Your task to perform on an android device: install app "Walmart Shopping & Grocery" Image 0: 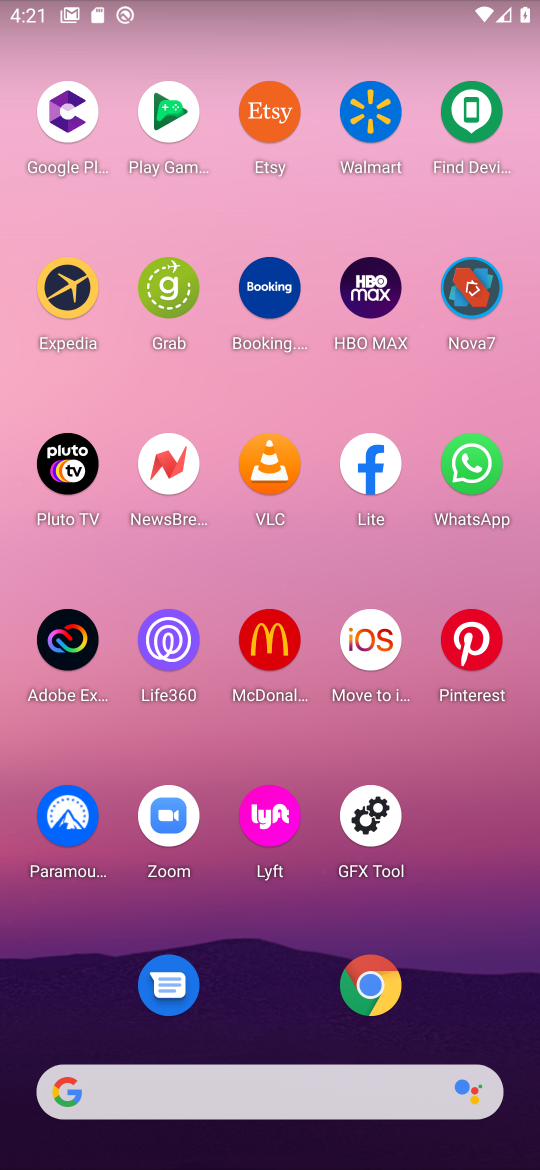
Step 0: drag from (259, 912) to (243, 100)
Your task to perform on an android device: install app "Walmart Shopping & Grocery" Image 1: 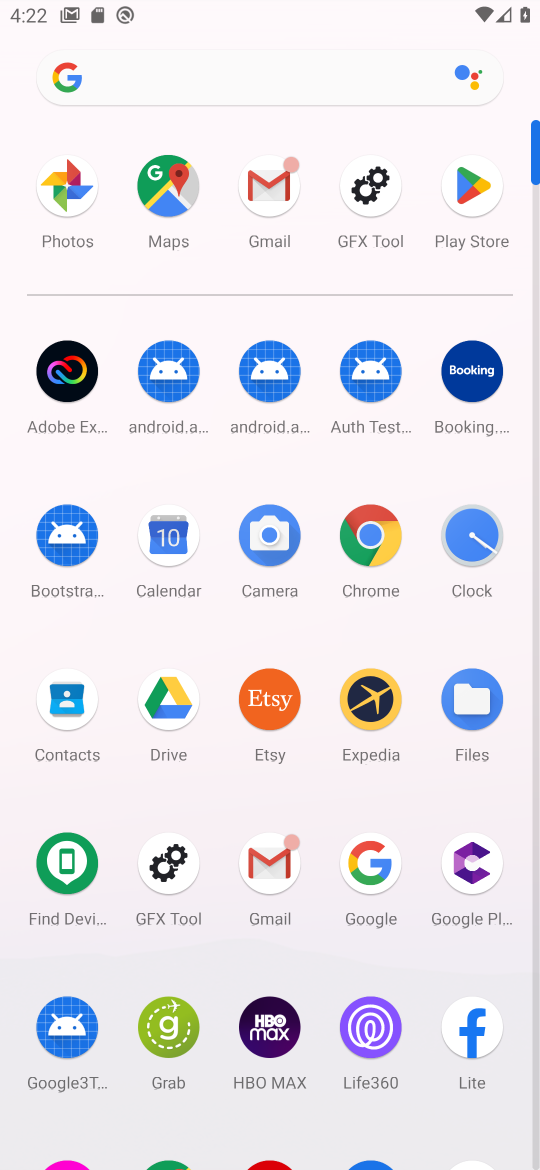
Step 1: click (455, 228)
Your task to perform on an android device: install app "Walmart Shopping & Grocery" Image 2: 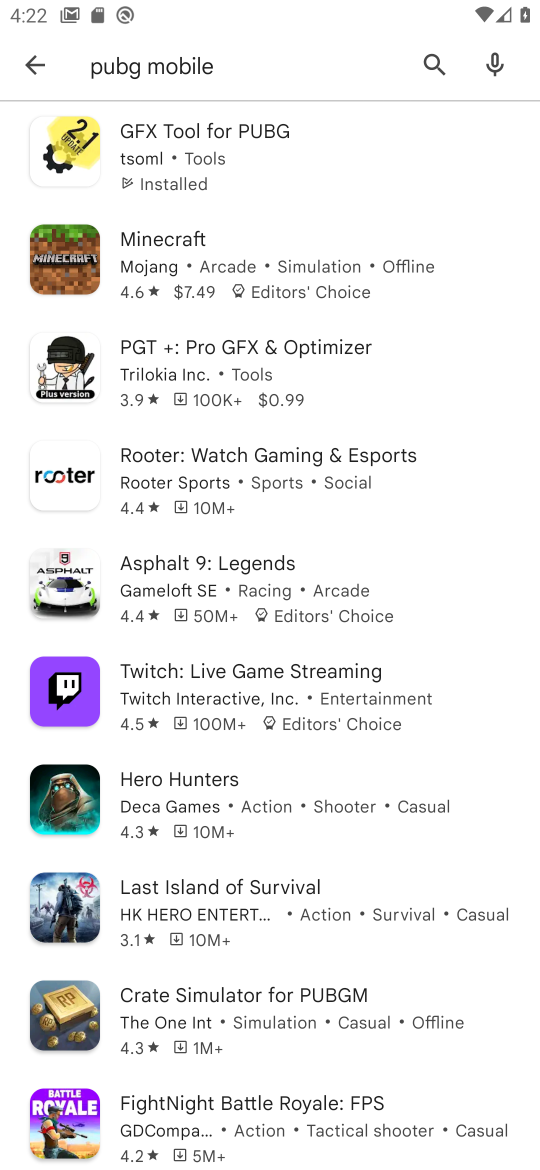
Step 2: click (35, 67)
Your task to perform on an android device: install app "Walmart Shopping & Grocery" Image 3: 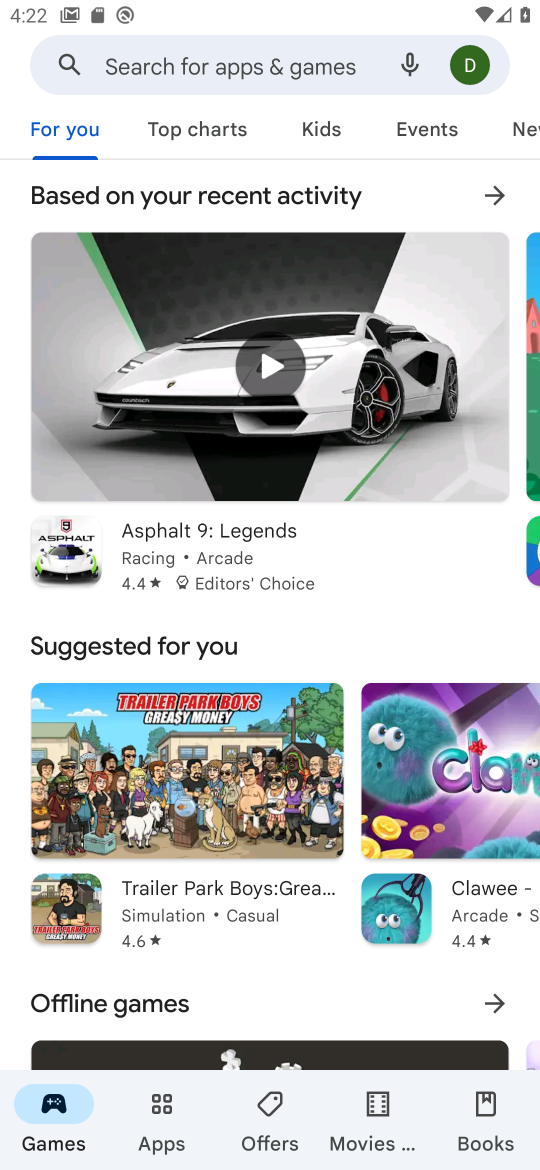
Step 3: click (200, 67)
Your task to perform on an android device: install app "Walmart Shopping & Grocery" Image 4: 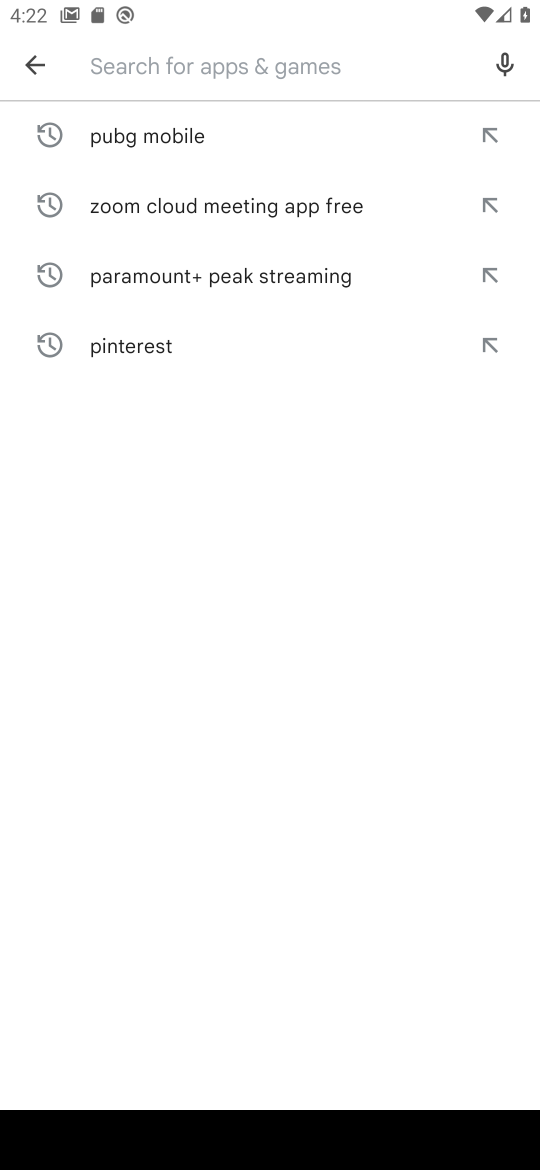
Step 4: type "Walmart Shopping & Grocery"
Your task to perform on an android device: install app "Walmart Shopping & Grocery" Image 5: 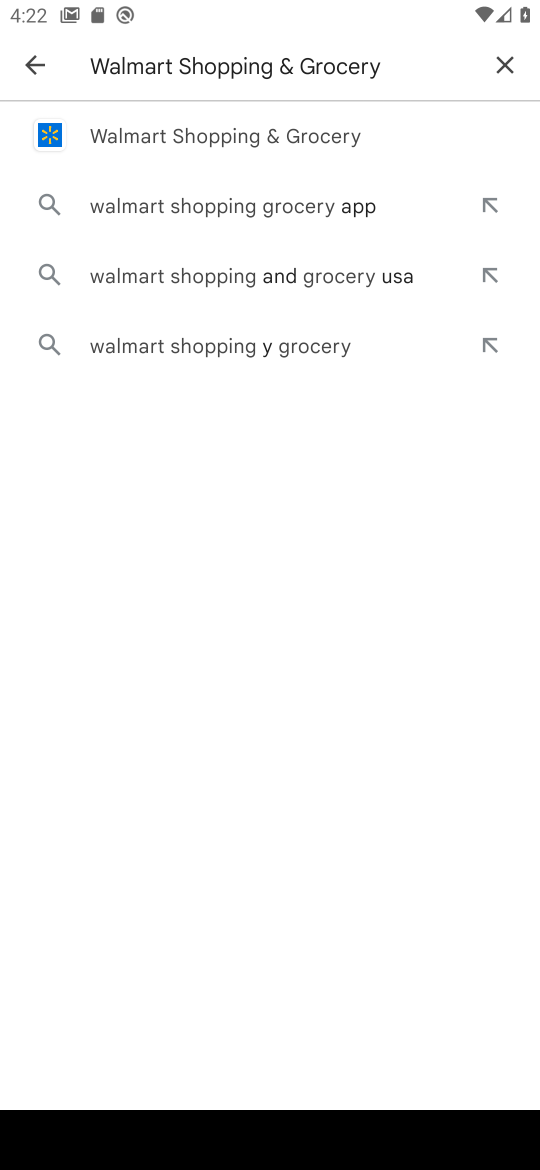
Step 5: click (298, 145)
Your task to perform on an android device: install app "Walmart Shopping & Grocery" Image 6: 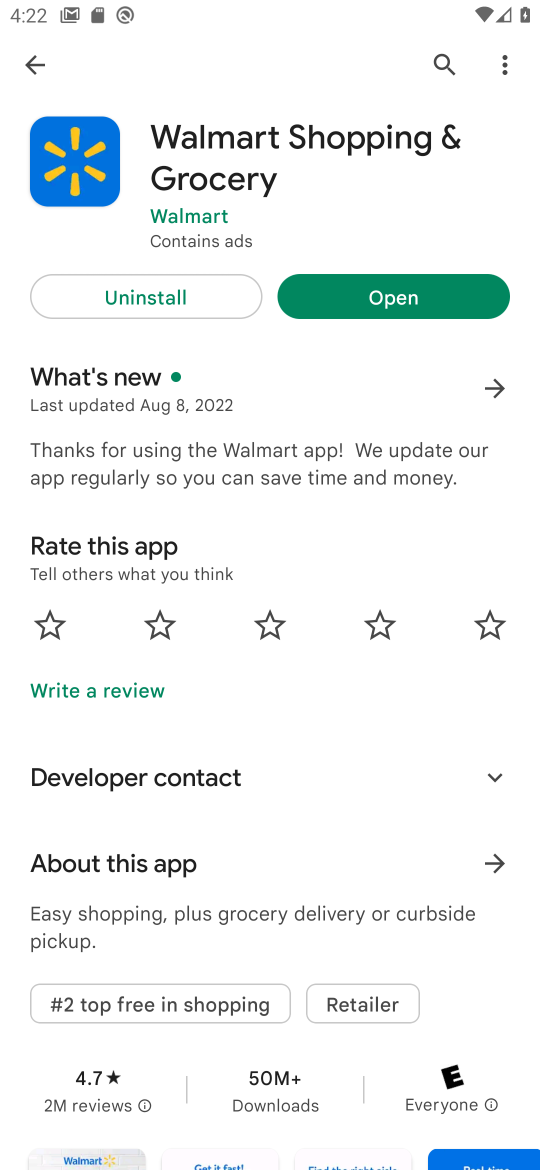
Step 6: task complete